Your task to perform on an android device: turn on bluetooth scan Image 0: 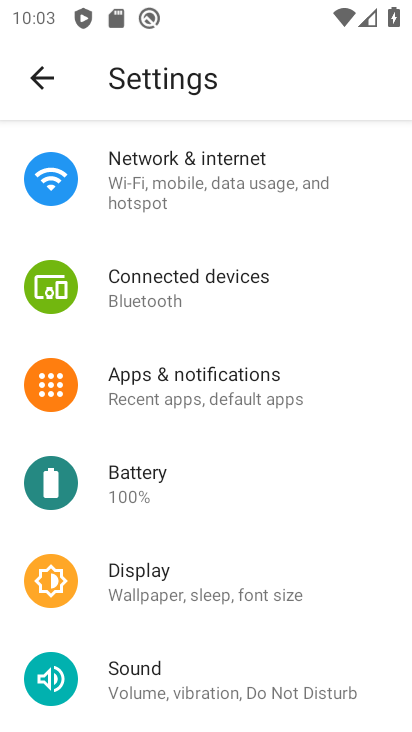
Step 0: click (192, 303)
Your task to perform on an android device: turn on bluetooth scan Image 1: 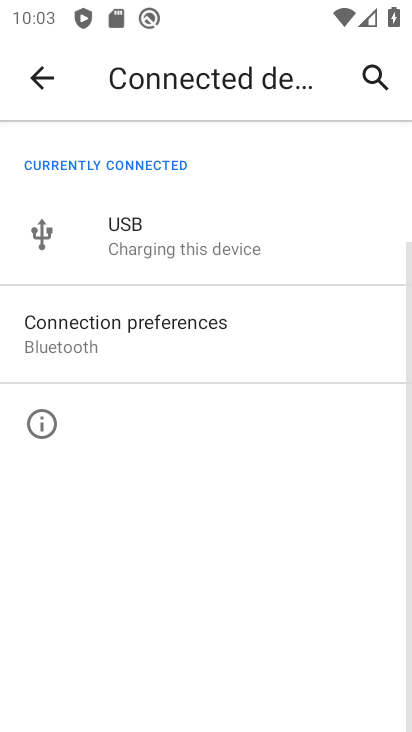
Step 1: click (101, 351)
Your task to perform on an android device: turn on bluetooth scan Image 2: 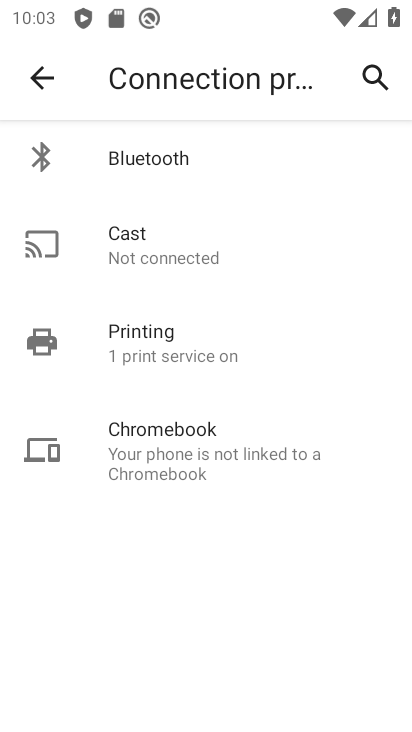
Step 2: click (156, 148)
Your task to perform on an android device: turn on bluetooth scan Image 3: 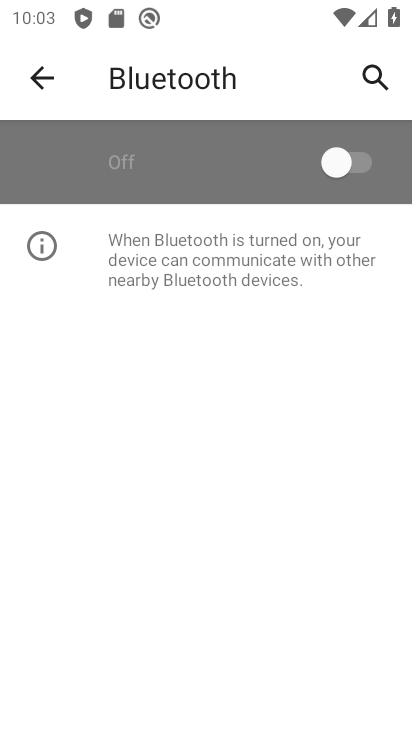
Step 3: click (339, 159)
Your task to perform on an android device: turn on bluetooth scan Image 4: 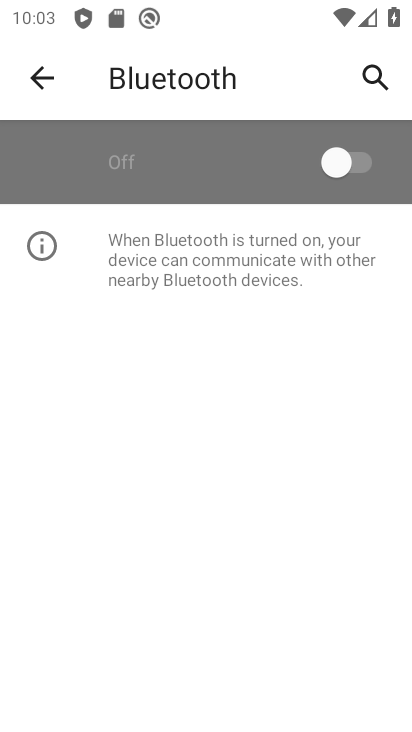
Step 4: task complete